Your task to perform on an android device: Add acer nitro to the cart on costco.com Image 0: 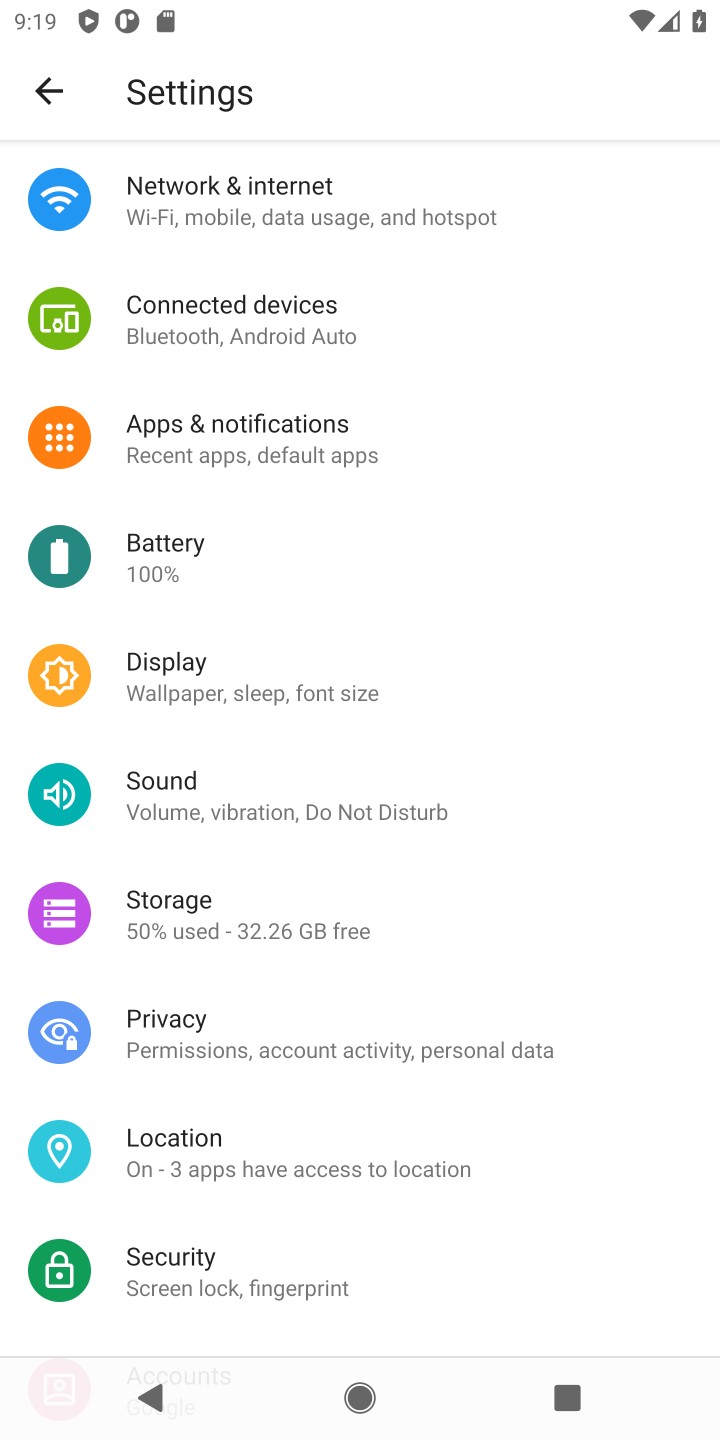
Step 0: press home button
Your task to perform on an android device: Add acer nitro to the cart on costco.com Image 1: 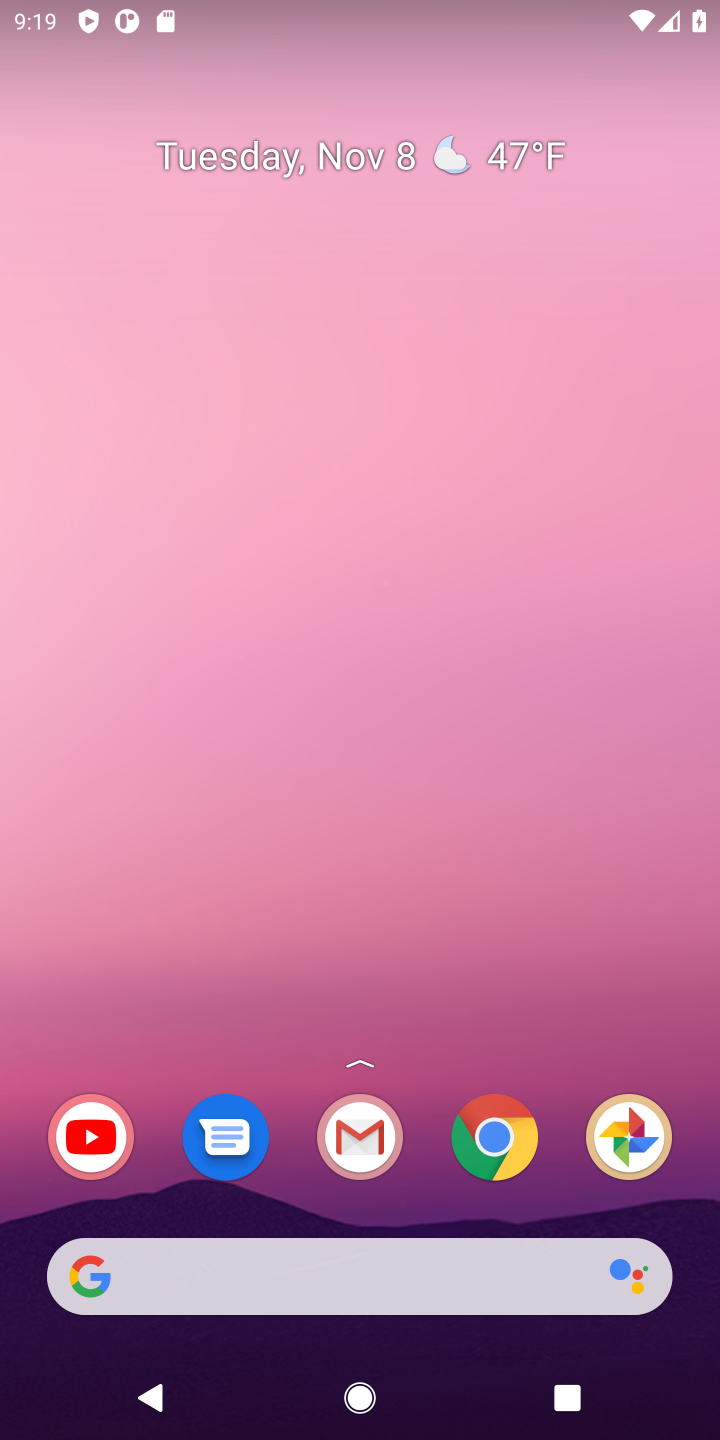
Step 1: click (495, 1138)
Your task to perform on an android device: Add acer nitro to the cart on costco.com Image 2: 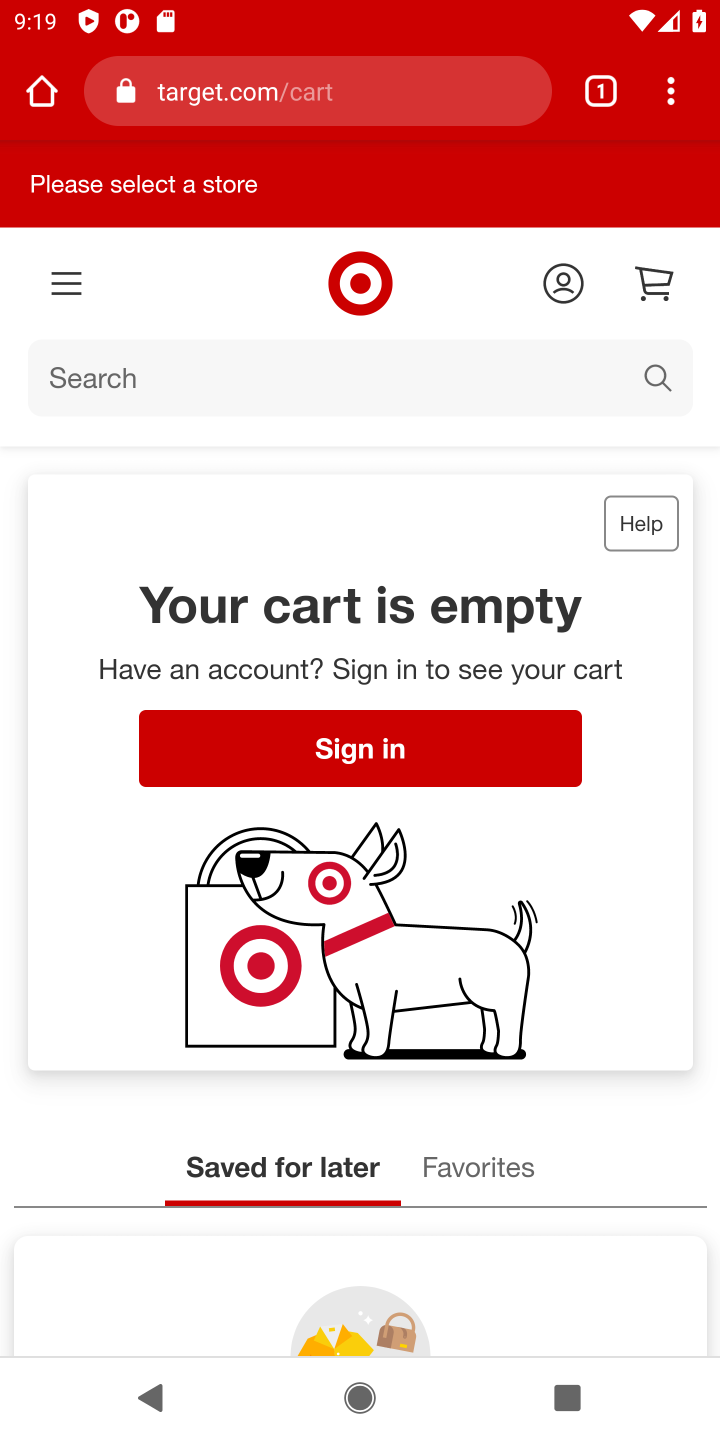
Step 2: click (342, 96)
Your task to perform on an android device: Add acer nitro to the cart on costco.com Image 3: 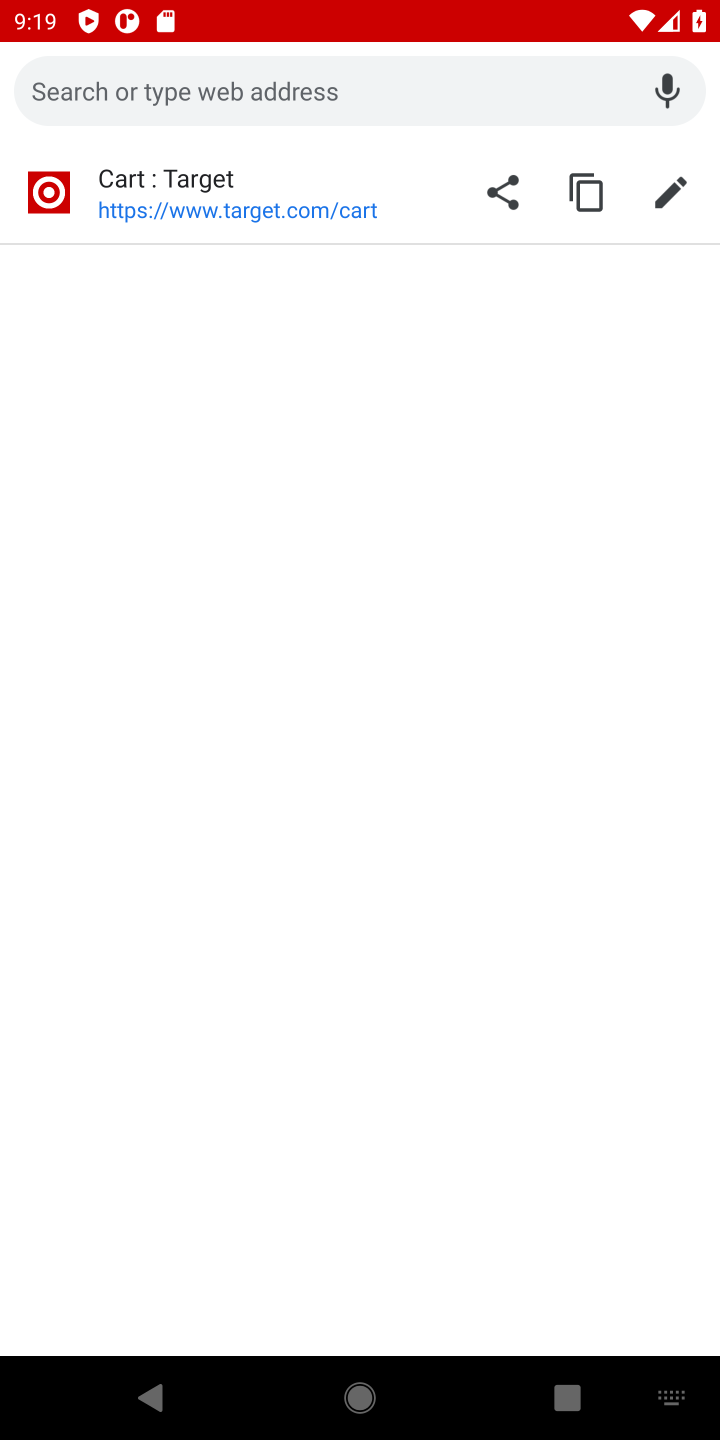
Step 3: type "costco.com"
Your task to perform on an android device: Add acer nitro to the cart on costco.com Image 4: 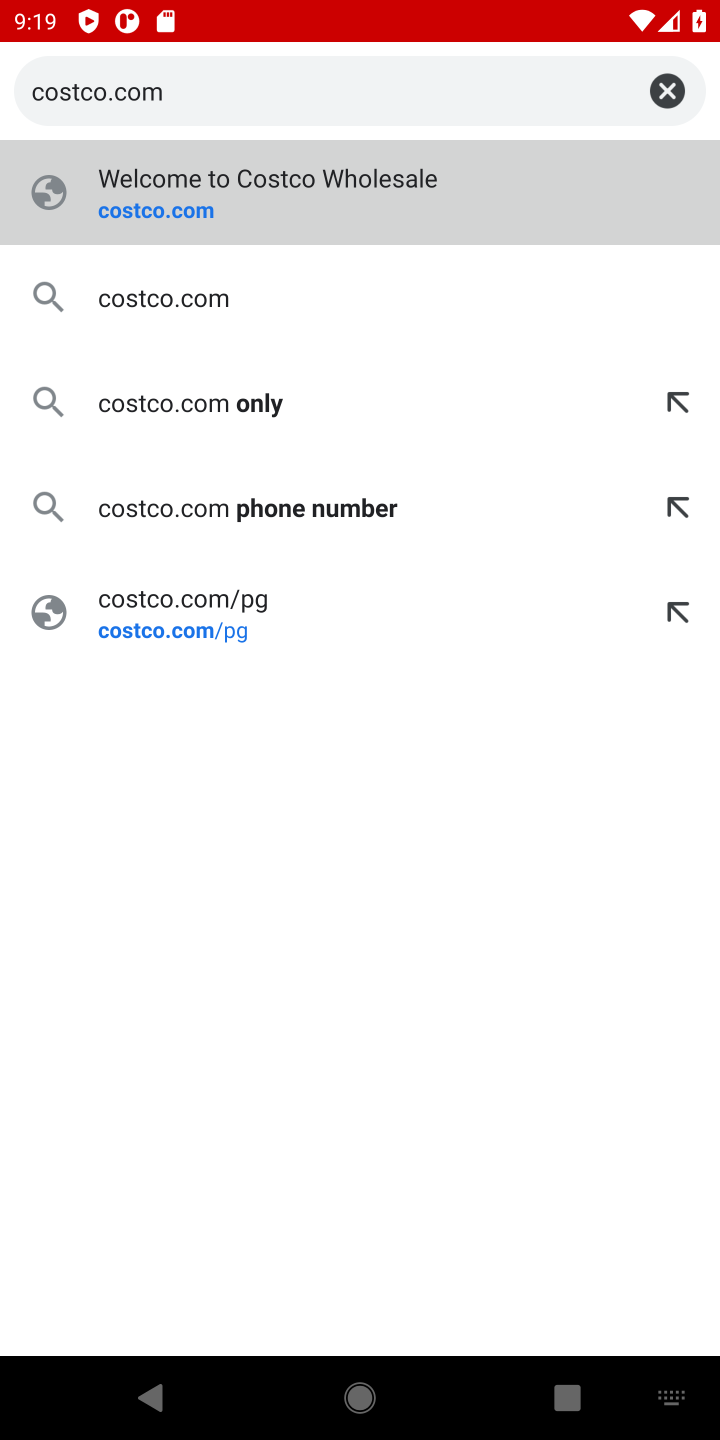
Step 4: click (192, 296)
Your task to perform on an android device: Add acer nitro to the cart on costco.com Image 5: 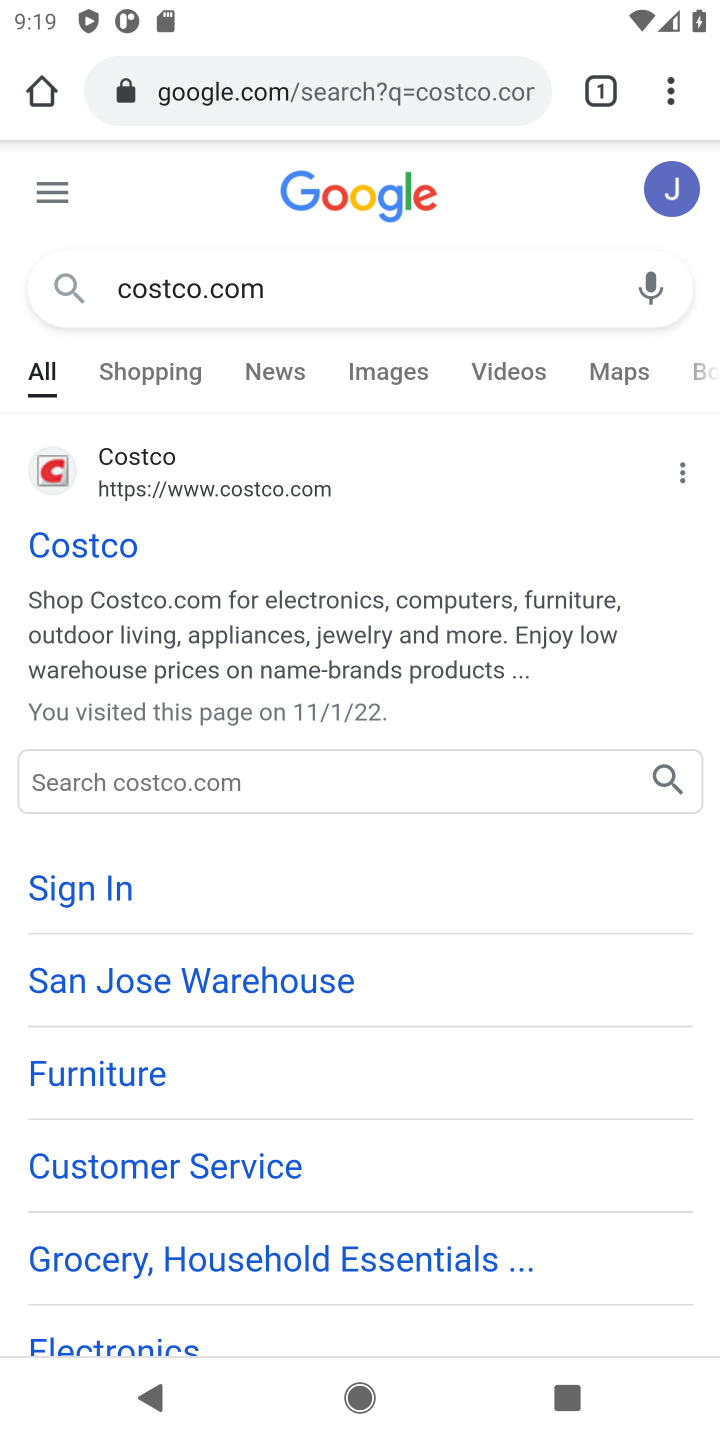
Step 5: click (175, 526)
Your task to perform on an android device: Add acer nitro to the cart on costco.com Image 6: 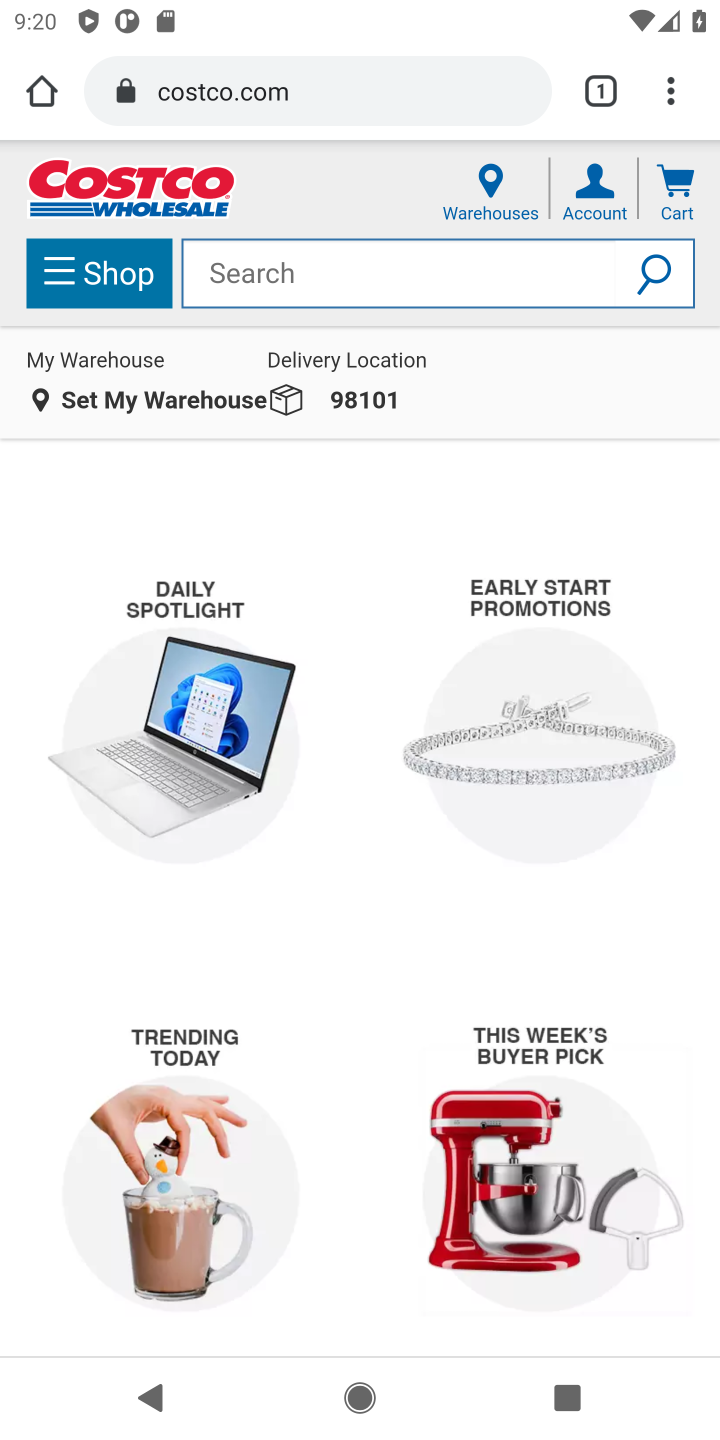
Step 6: click (331, 268)
Your task to perform on an android device: Add acer nitro to the cart on costco.com Image 7: 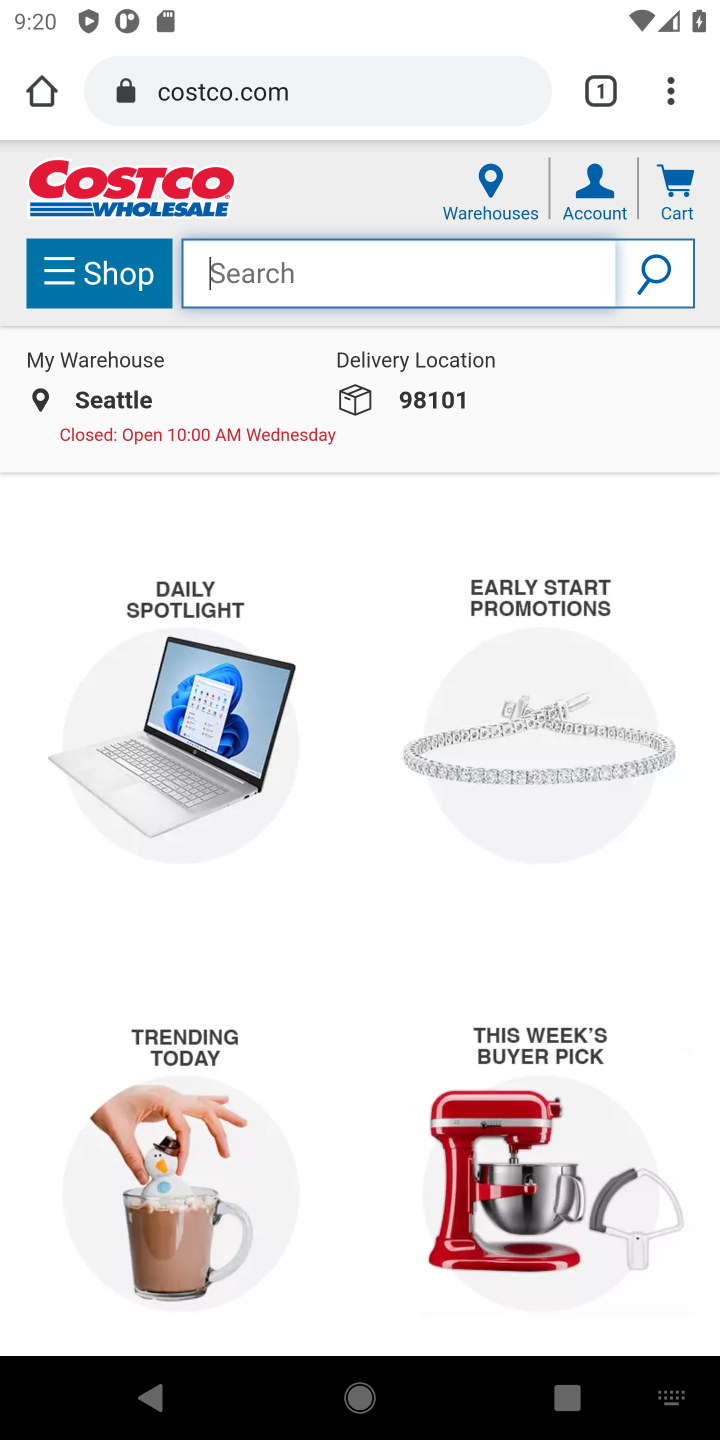
Step 7: type "acer nitro"
Your task to perform on an android device: Add acer nitro to the cart on costco.com Image 8: 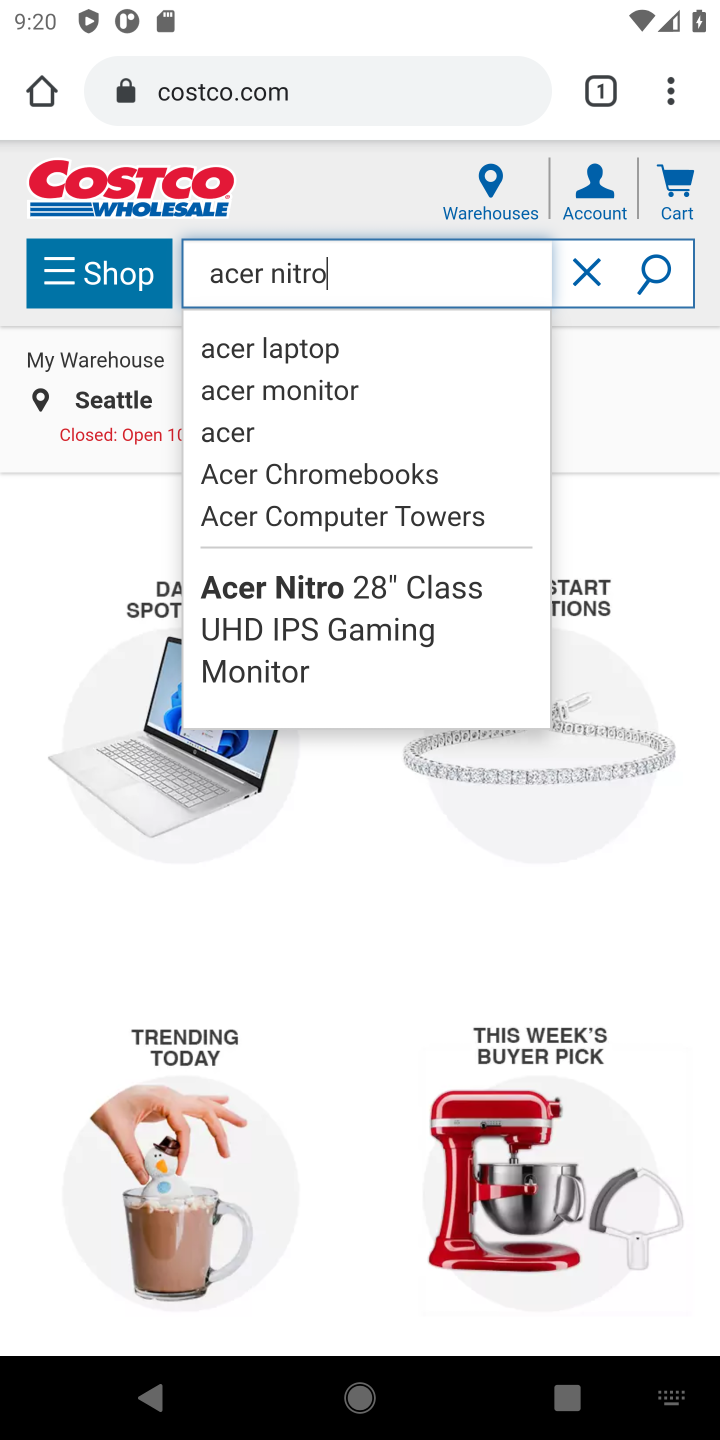
Step 8: click (649, 281)
Your task to perform on an android device: Add acer nitro to the cart on costco.com Image 9: 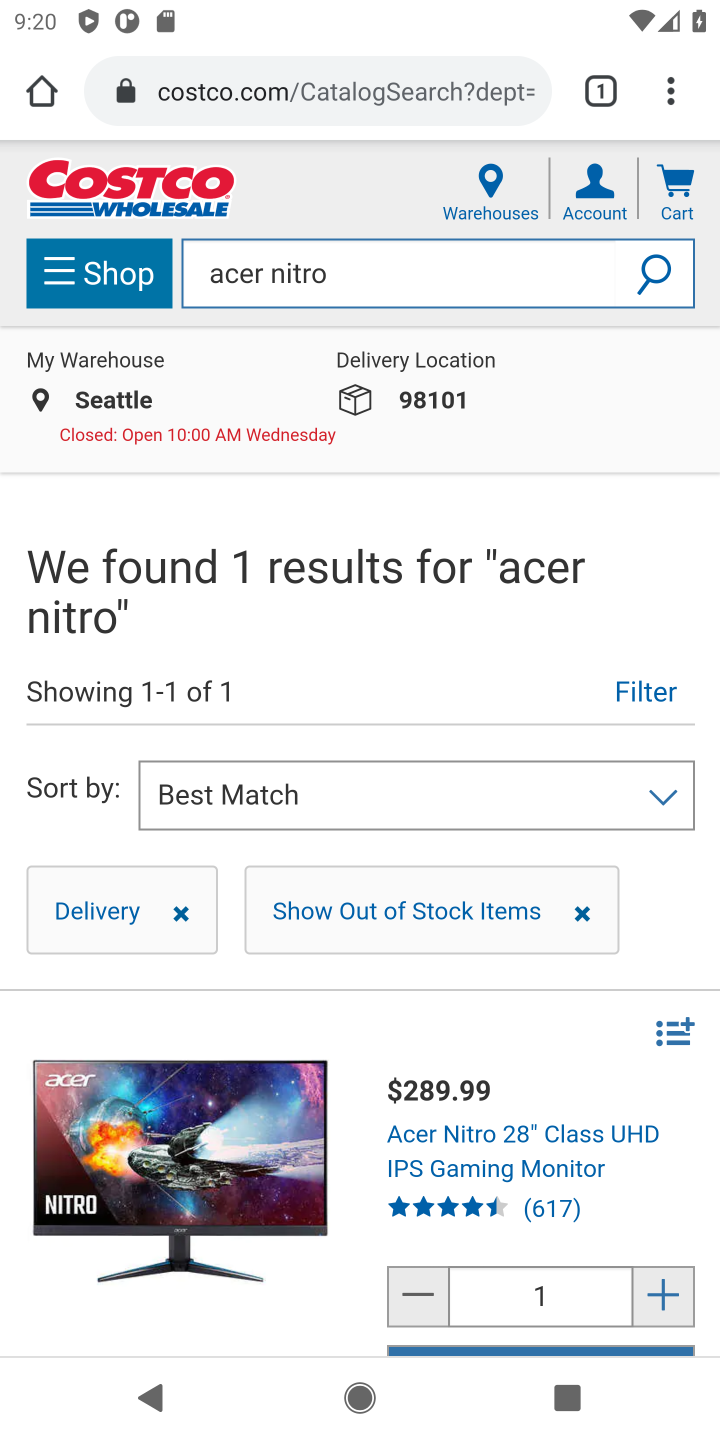
Step 9: click (458, 1145)
Your task to perform on an android device: Add acer nitro to the cart on costco.com Image 10: 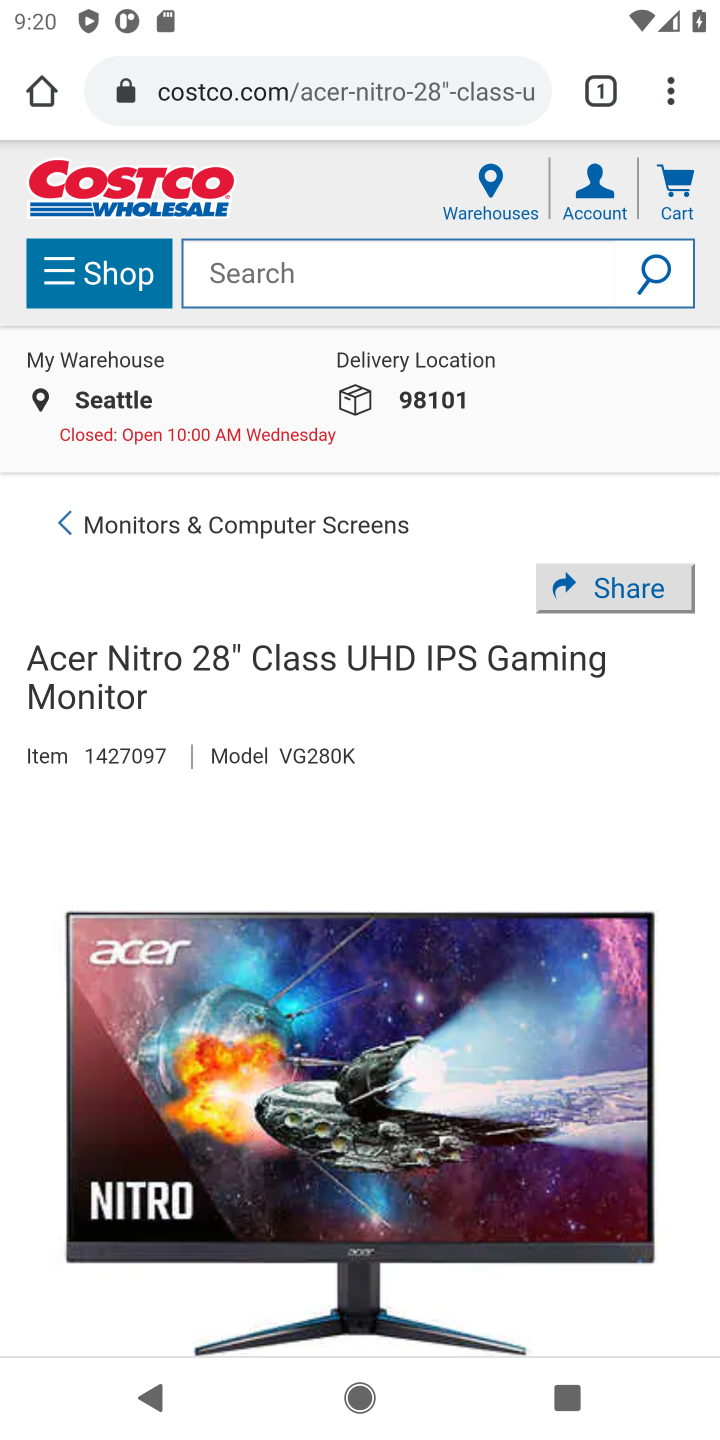
Step 10: drag from (549, 1295) to (554, 646)
Your task to perform on an android device: Add acer nitro to the cart on costco.com Image 11: 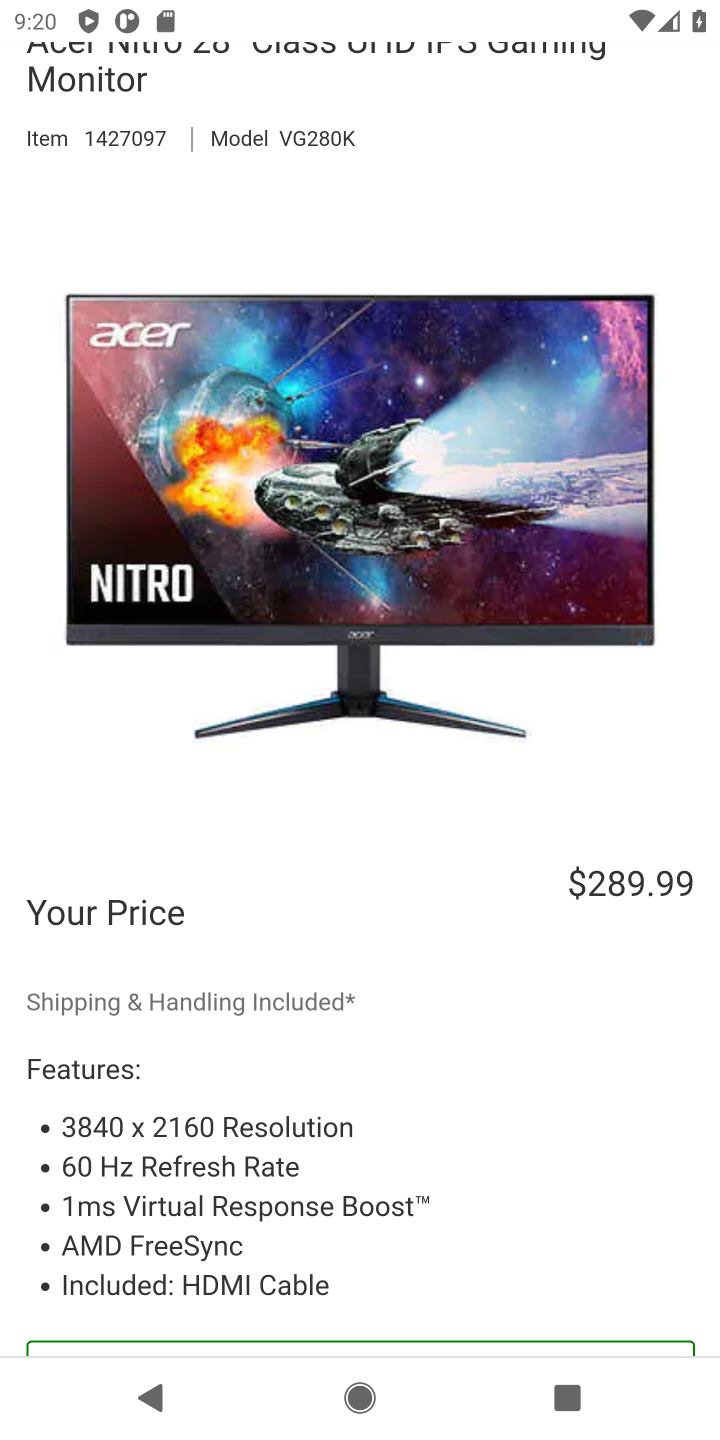
Step 11: drag from (462, 1088) to (474, 327)
Your task to perform on an android device: Add acer nitro to the cart on costco.com Image 12: 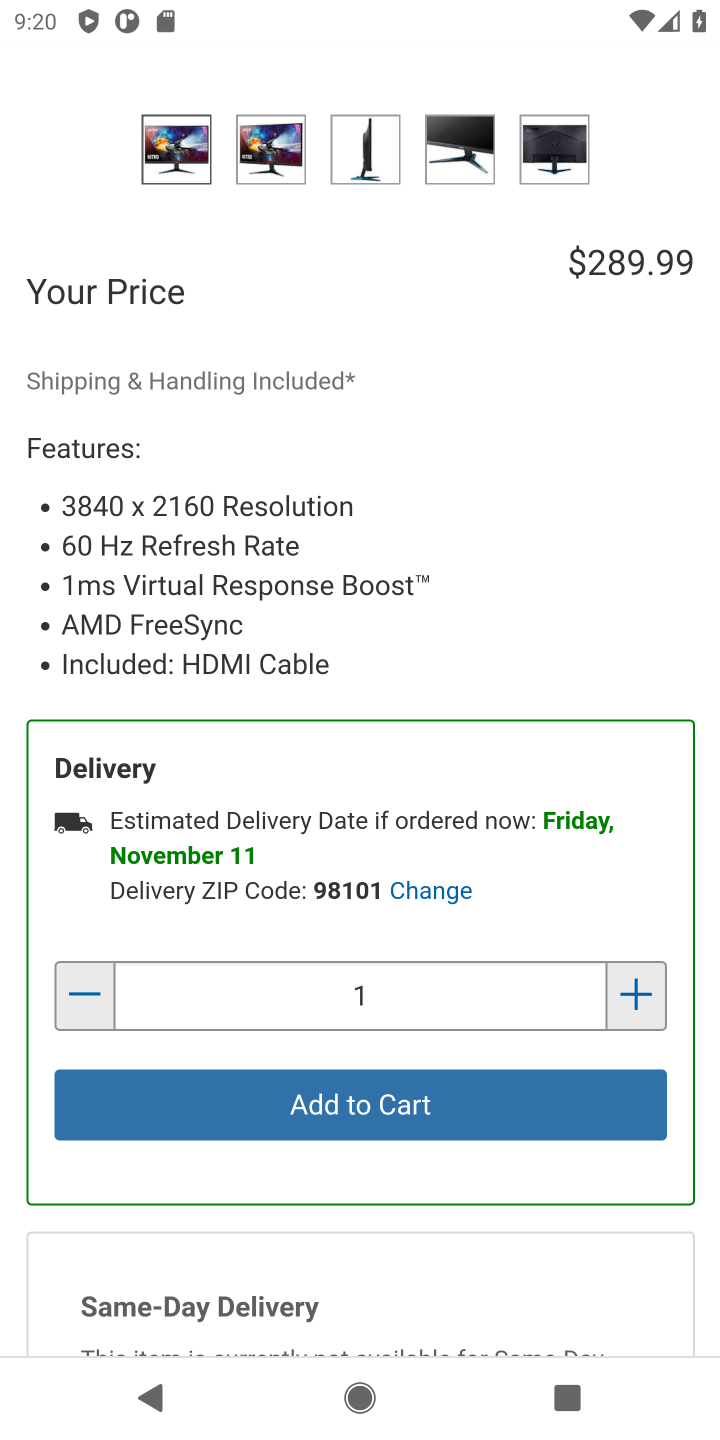
Step 12: click (350, 1102)
Your task to perform on an android device: Add acer nitro to the cart on costco.com Image 13: 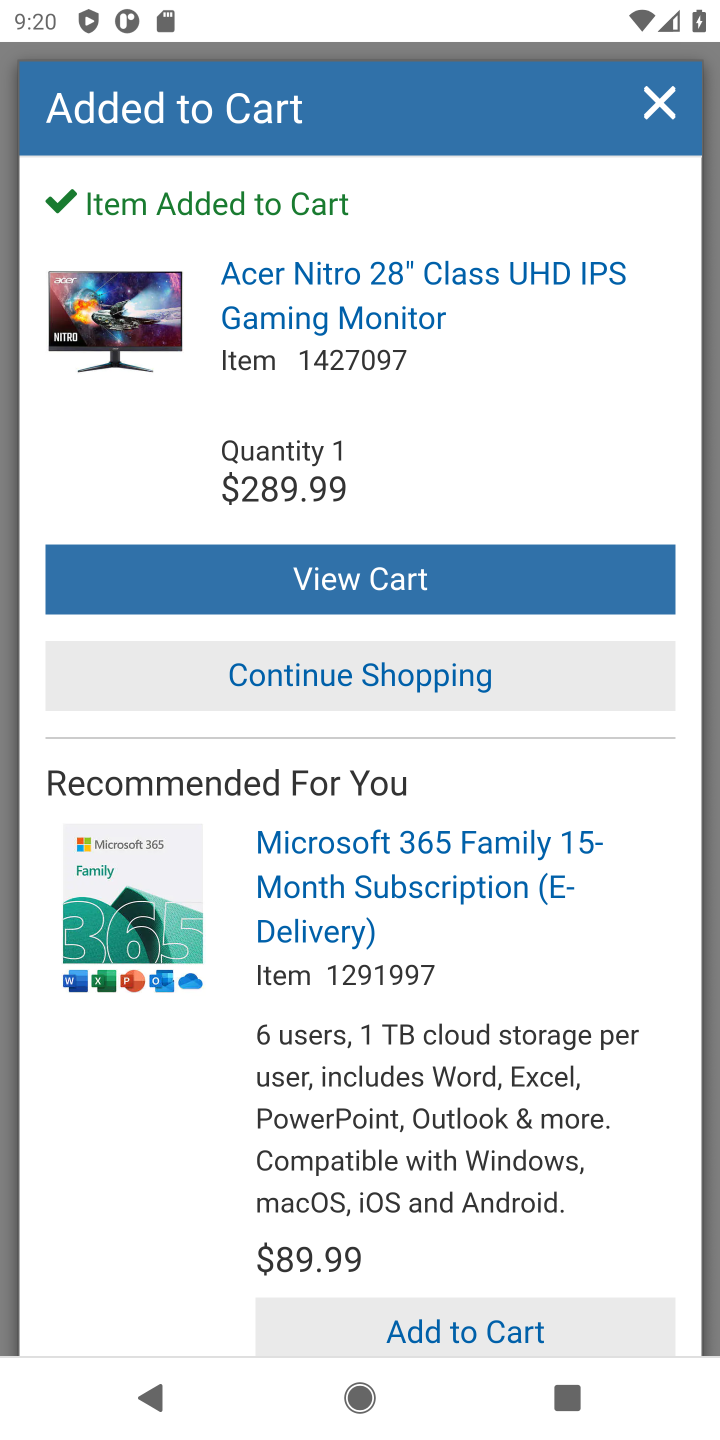
Step 13: click (342, 570)
Your task to perform on an android device: Add acer nitro to the cart on costco.com Image 14: 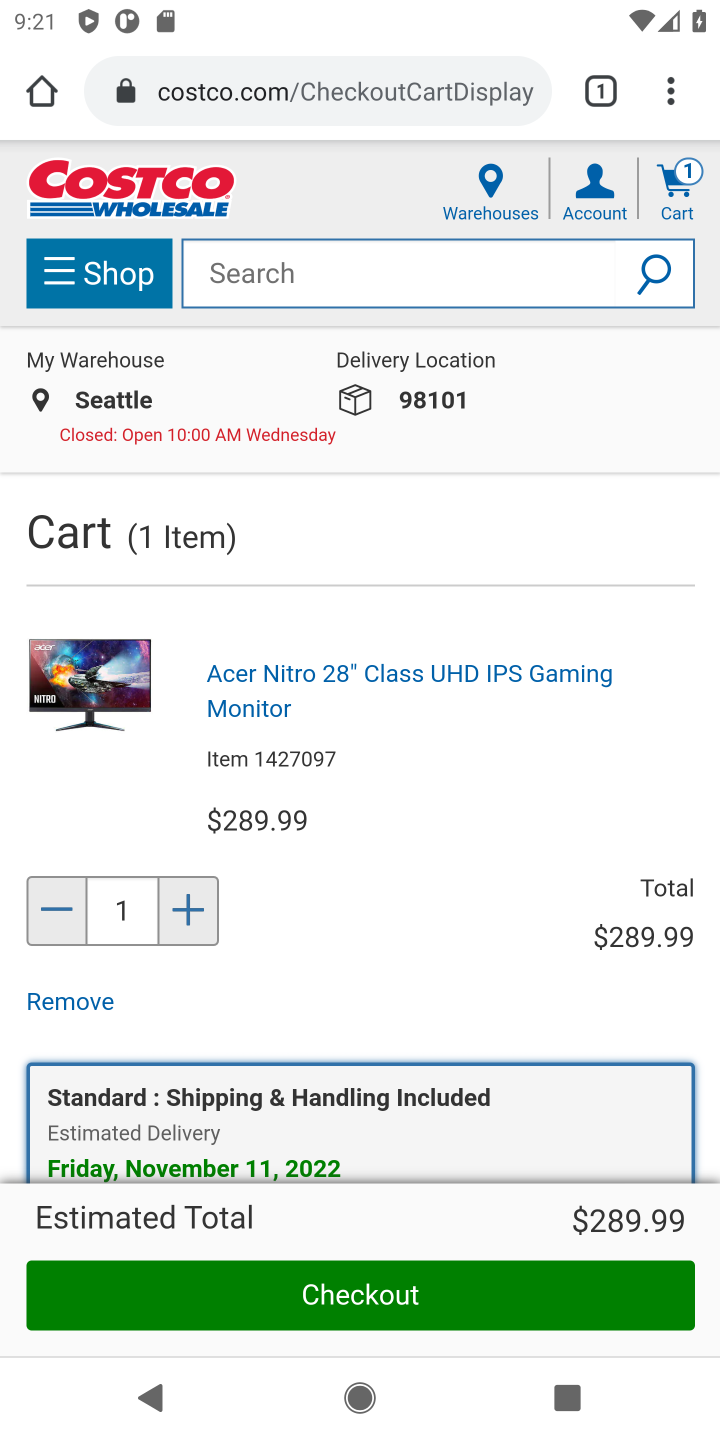
Step 14: task complete